Your task to perform on an android device: star an email in the gmail app Image 0: 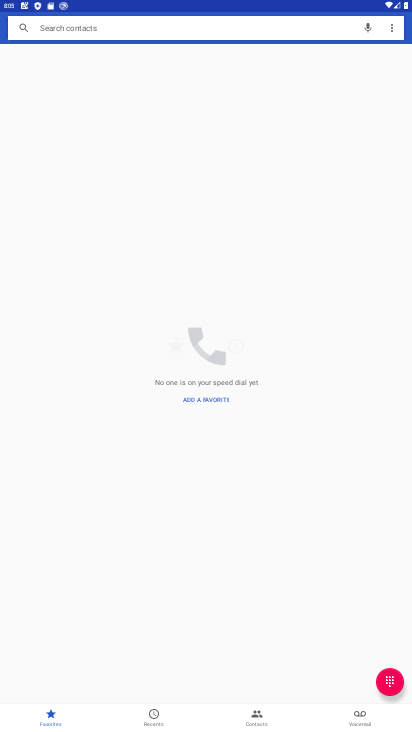
Step 0: press home button
Your task to perform on an android device: star an email in the gmail app Image 1: 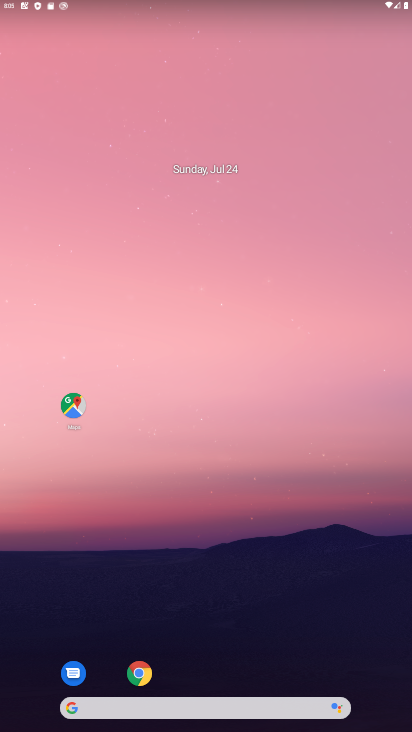
Step 1: drag from (181, 670) to (154, 299)
Your task to perform on an android device: star an email in the gmail app Image 2: 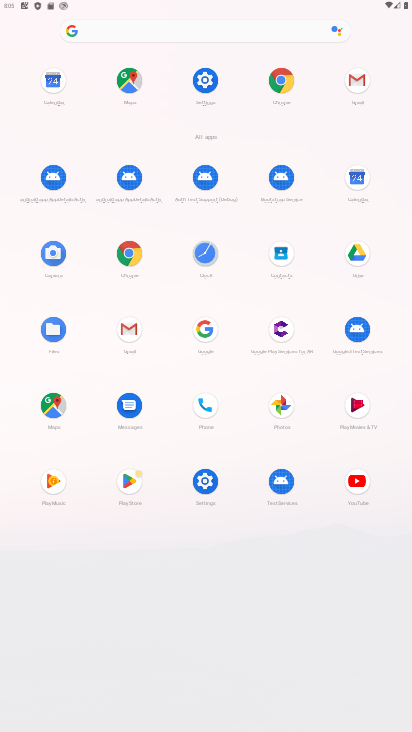
Step 2: click (363, 88)
Your task to perform on an android device: star an email in the gmail app Image 3: 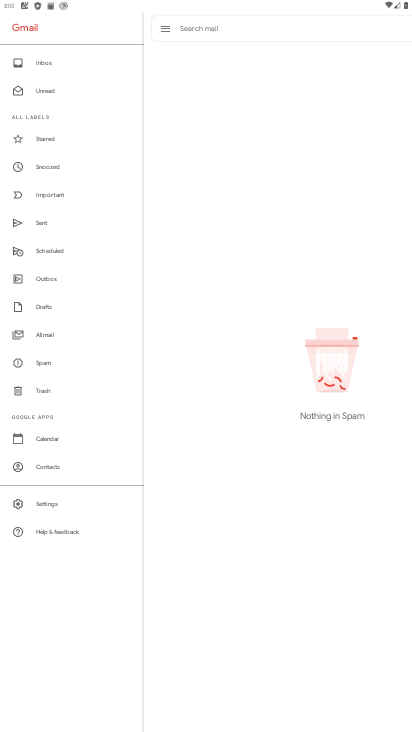
Step 3: click (37, 334)
Your task to perform on an android device: star an email in the gmail app Image 4: 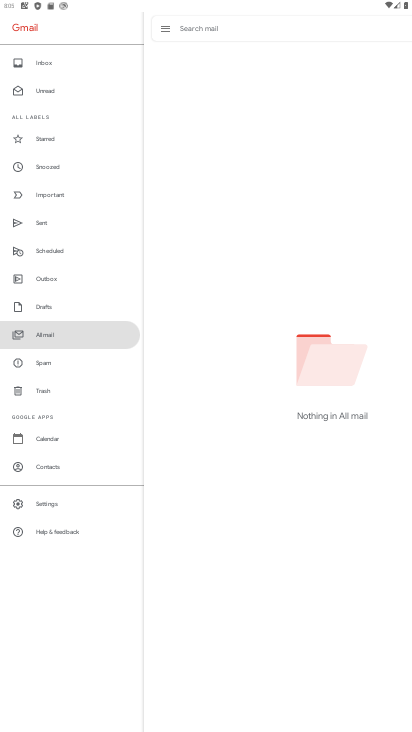
Step 4: task complete